Your task to perform on an android device: Search for Italian restaurants on Maps Image 0: 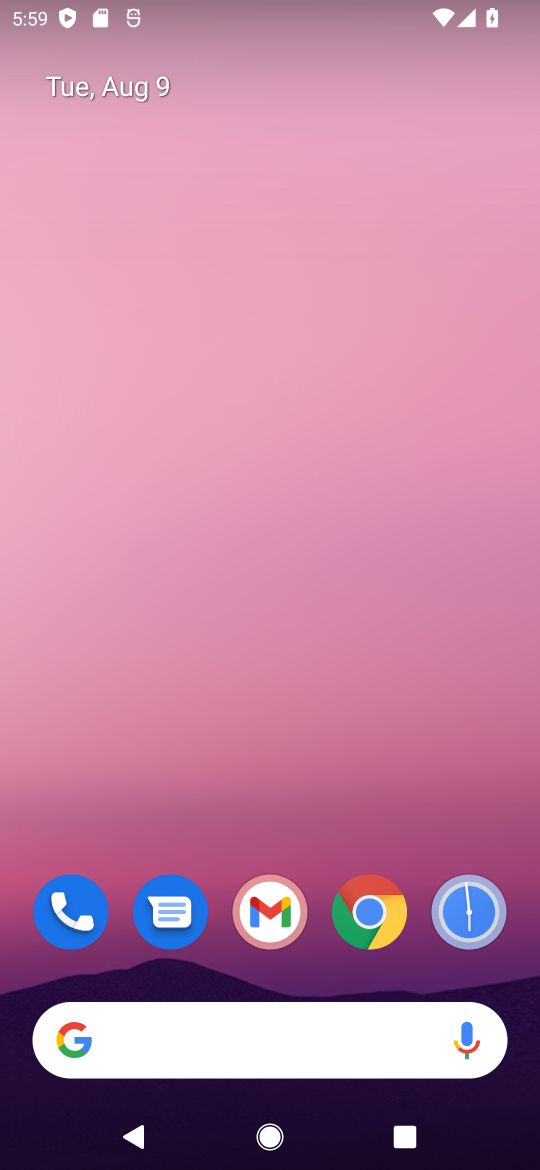
Step 0: press home button
Your task to perform on an android device: Search for Italian restaurants on Maps Image 1: 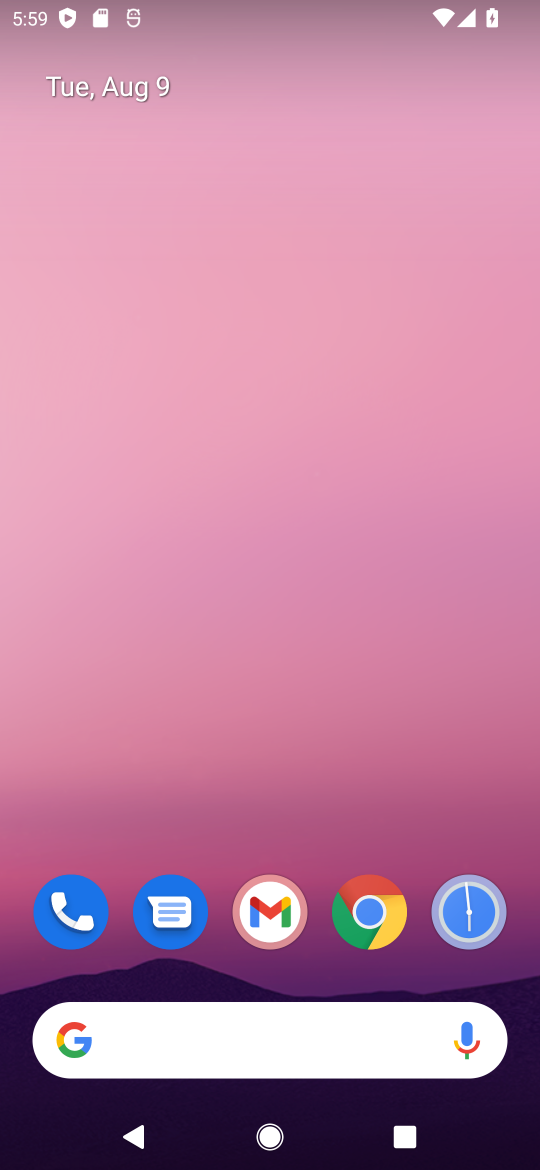
Step 1: drag from (293, 889) to (188, 272)
Your task to perform on an android device: Search for Italian restaurants on Maps Image 2: 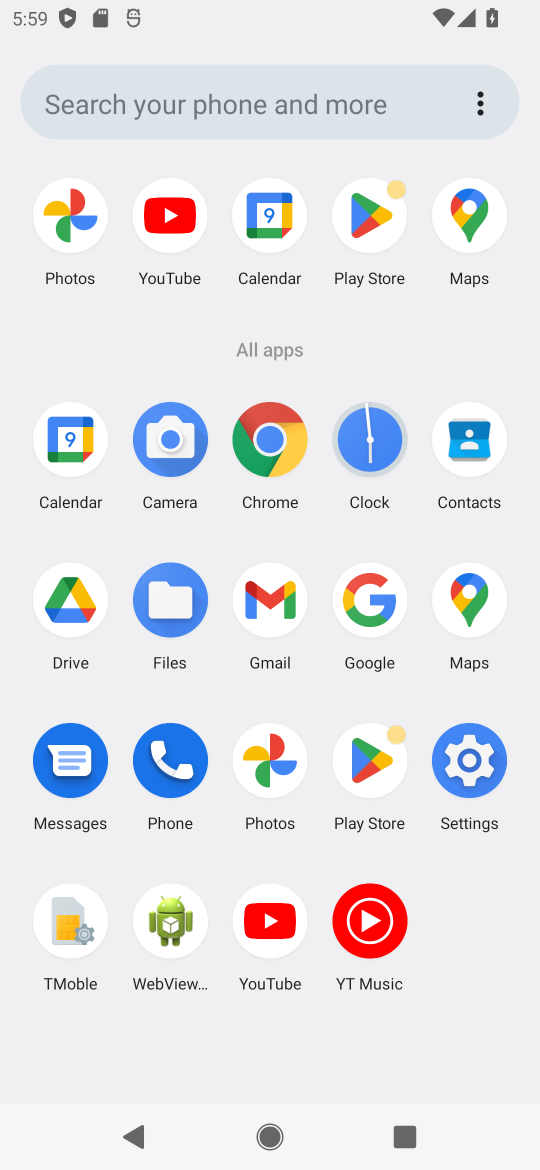
Step 2: click (475, 218)
Your task to perform on an android device: Search for Italian restaurants on Maps Image 3: 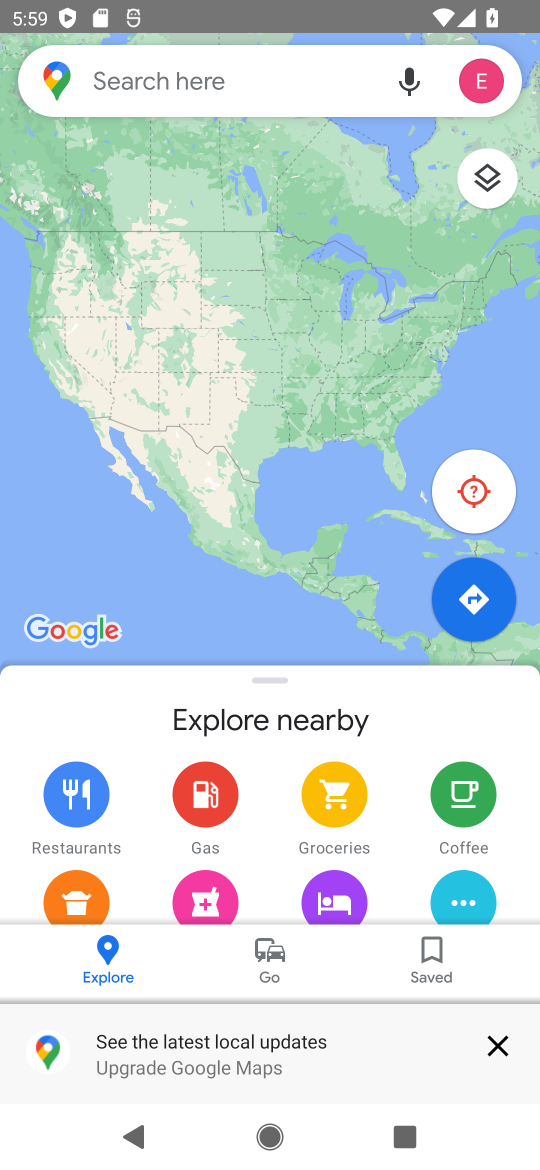
Step 3: click (215, 62)
Your task to perform on an android device: Search for Italian restaurants on Maps Image 4: 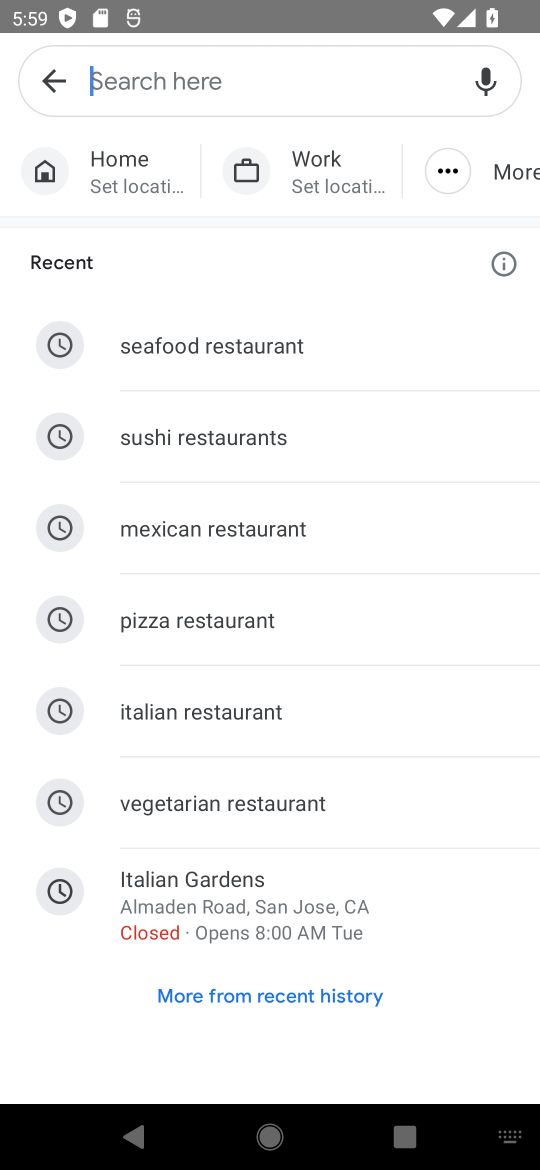
Step 4: click (238, 710)
Your task to perform on an android device: Search for Italian restaurants on Maps Image 5: 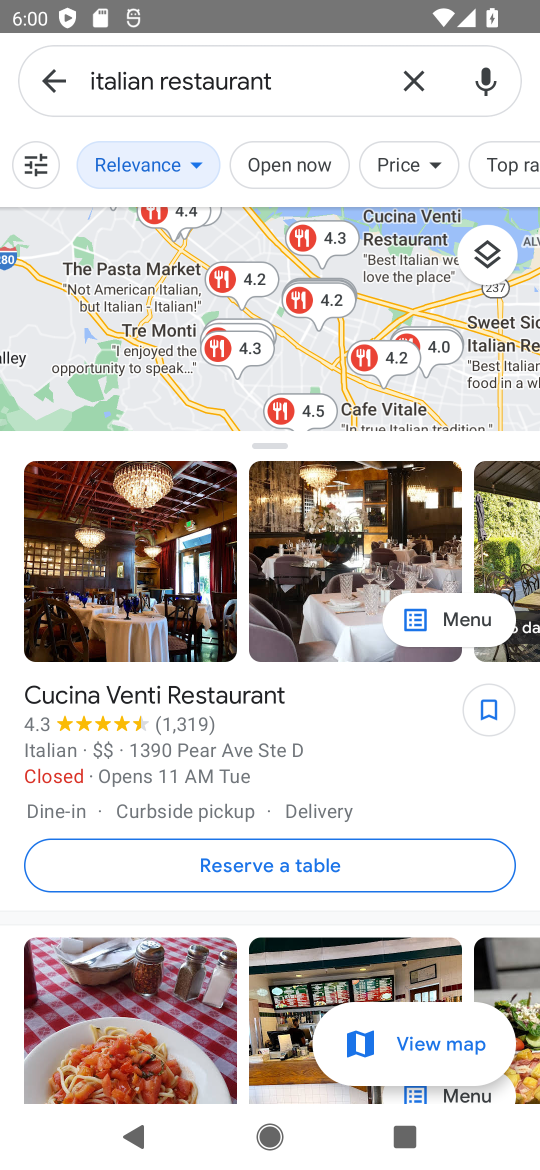
Step 5: task complete